Your task to perform on an android device: Is it going to rain today? Image 0: 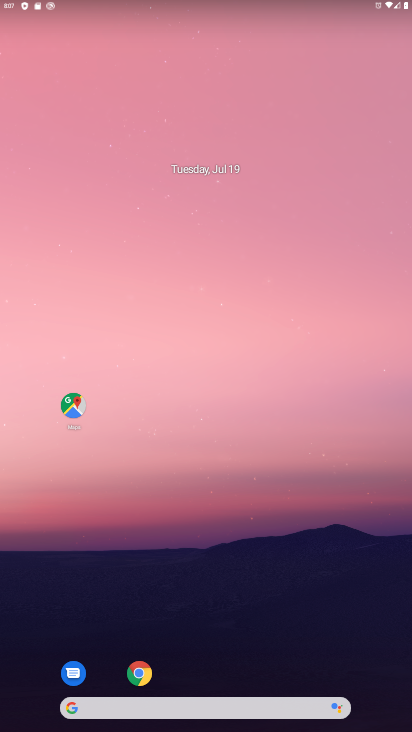
Step 0: drag from (241, 659) to (170, 118)
Your task to perform on an android device: Is it going to rain today? Image 1: 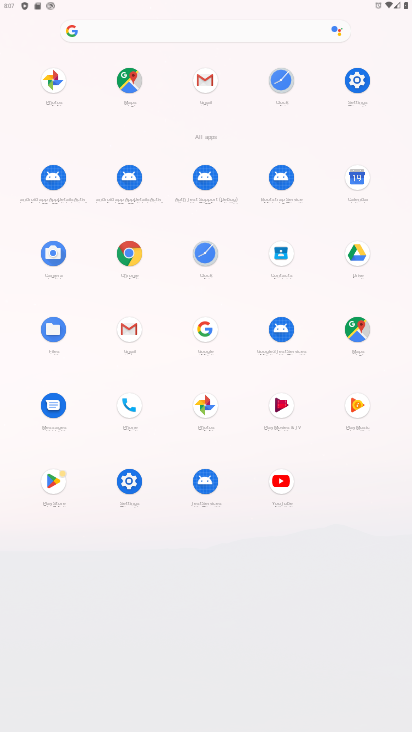
Step 1: click (126, 251)
Your task to perform on an android device: Is it going to rain today? Image 2: 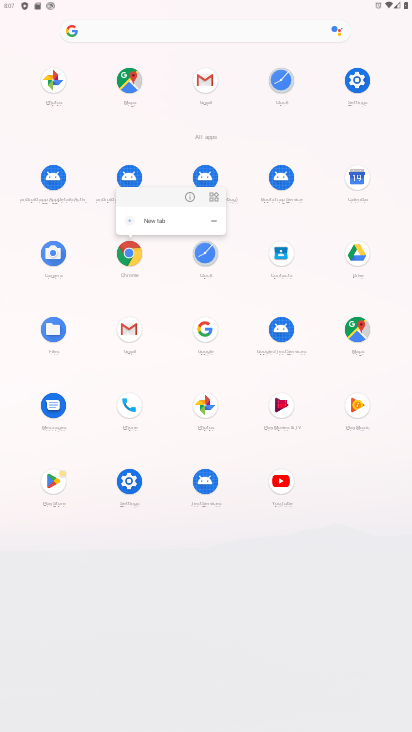
Step 2: click (139, 254)
Your task to perform on an android device: Is it going to rain today? Image 3: 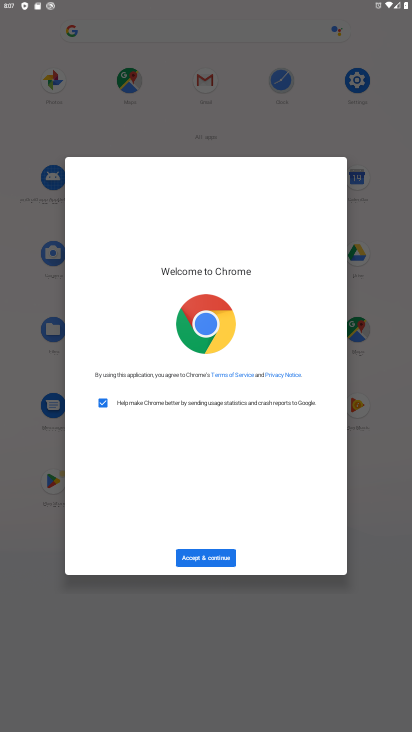
Step 3: click (229, 562)
Your task to perform on an android device: Is it going to rain today? Image 4: 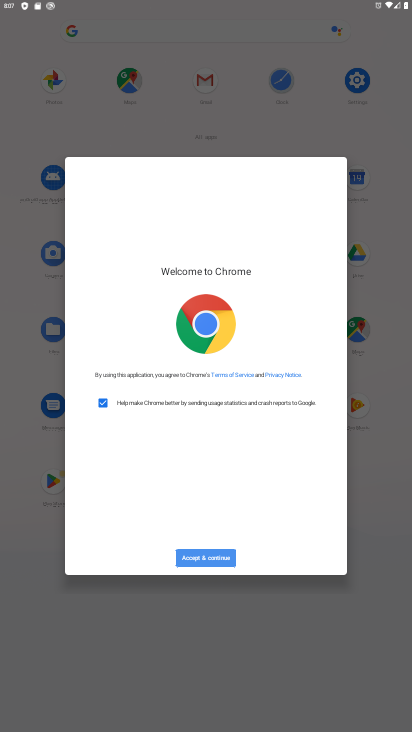
Step 4: click (229, 562)
Your task to perform on an android device: Is it going to rain today? Image 5: 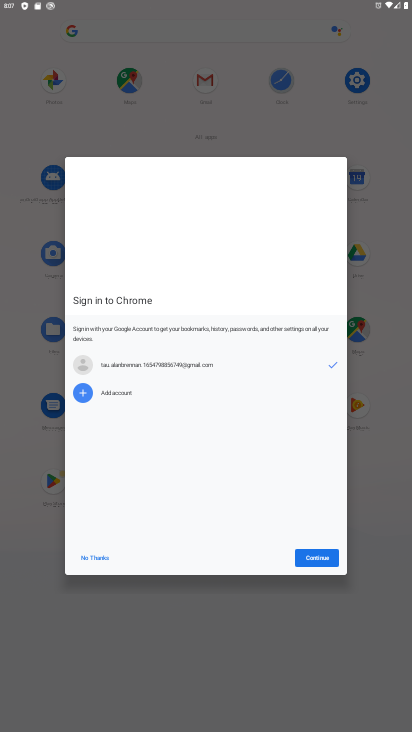
Step 5: click (229, 562)
Your task to perform on an android device: Is it going to rain today? Image 6: 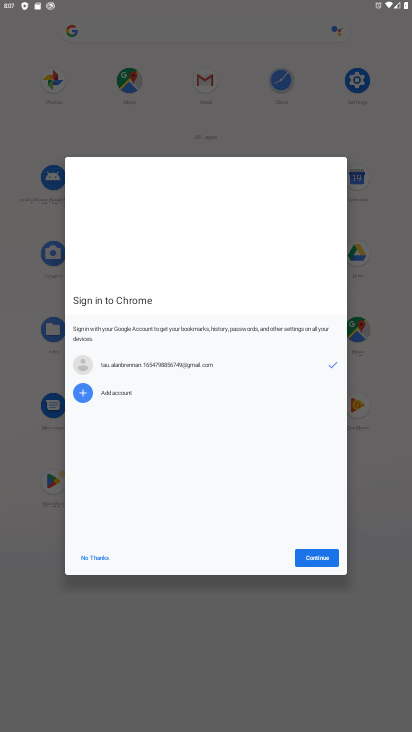
Step 6: click (315, 562)
Your task to perform on an android device: Is it going to rain today? Image 7: 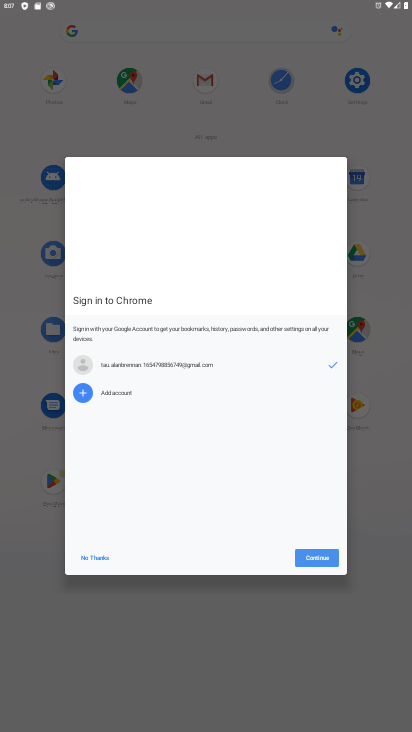
Step 7: click (317, 562)
Your task to perform on an android device: Is it going to rain today? Image 8: 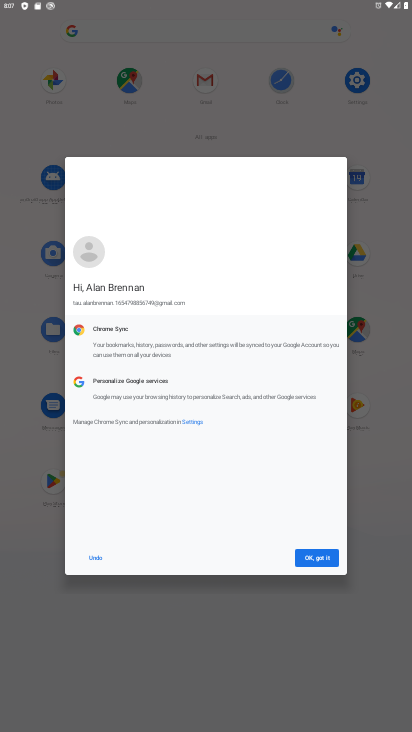
Step 8: click (319, 563)
Your task to perform on an android device: Is it going to rain today? Image 9: 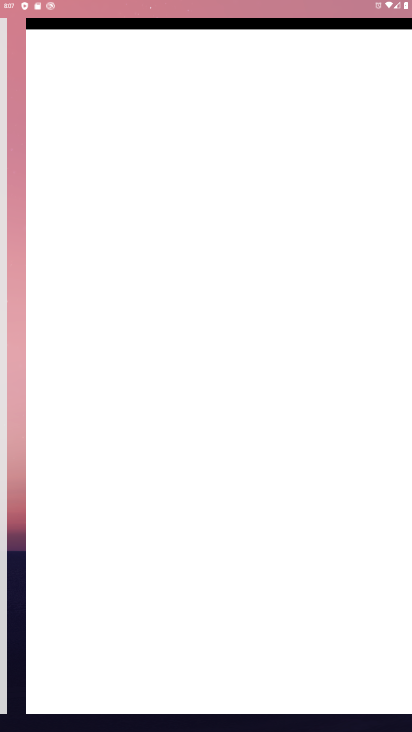
Step 9: click (323, 564)
Your task to perform on an android device: Is it going to rain today? Image 10: 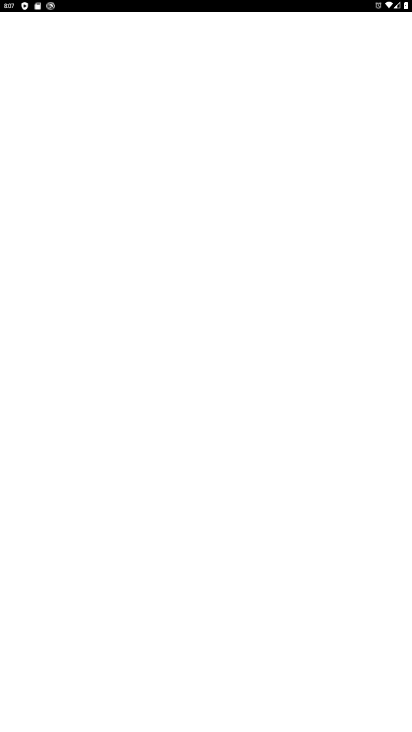
Step 10: click (323, 564)
Your task to perform on an android device: Is it going to rain today? Image 11: 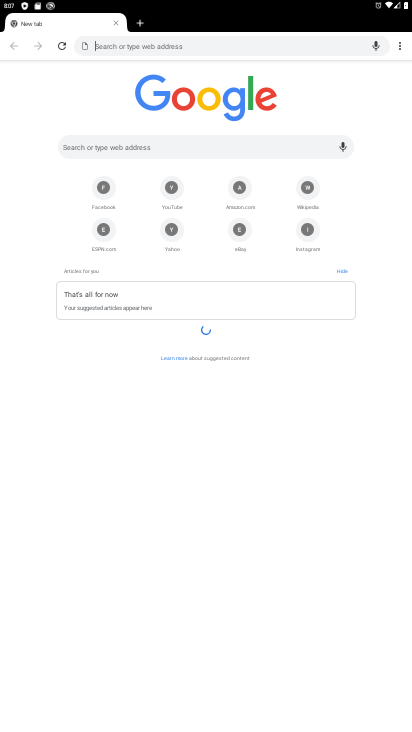
Step 11: click (129, 156)
Your task to perform on an android device: Is it going to rain today? Image 12: 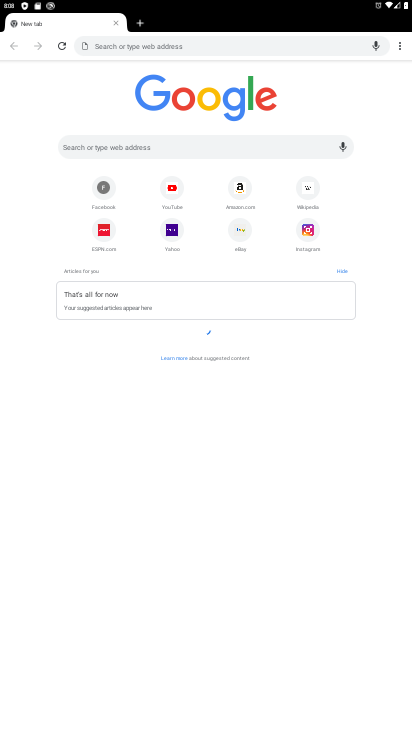
Step 12: click (115, 146)
Your task to perform on an android device: Is it going to rain today? Image 13: 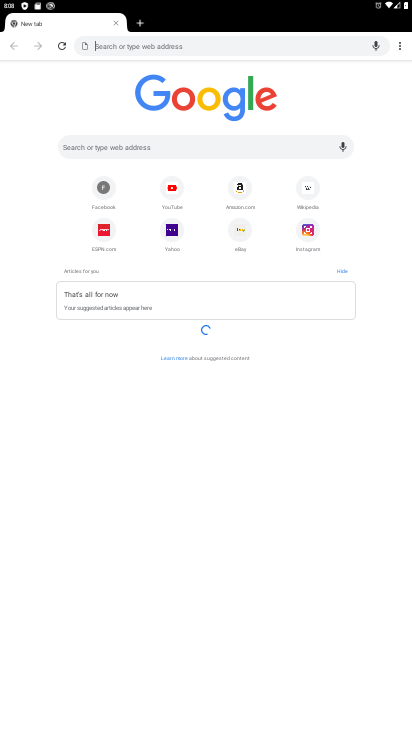
Step 13: click (115, 146)
Your task to perform on an android device: Is it going to rain today? Image 14: 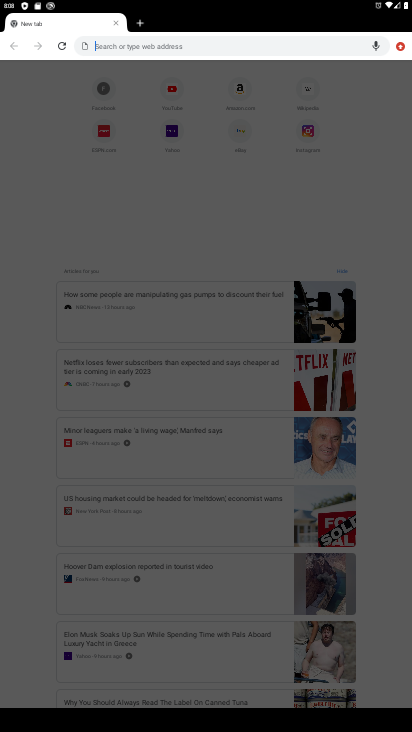
Step 14: type "is it goingbto rain today?"
Your task to perform on an android device: Is it going to rain today? Image 15: 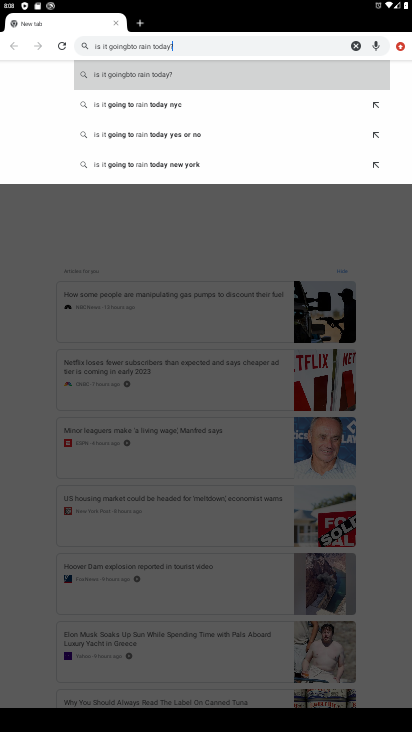
Step 15: click (159, 75)
Your task to perform on an android device: Is it going to rain today? Image 16: 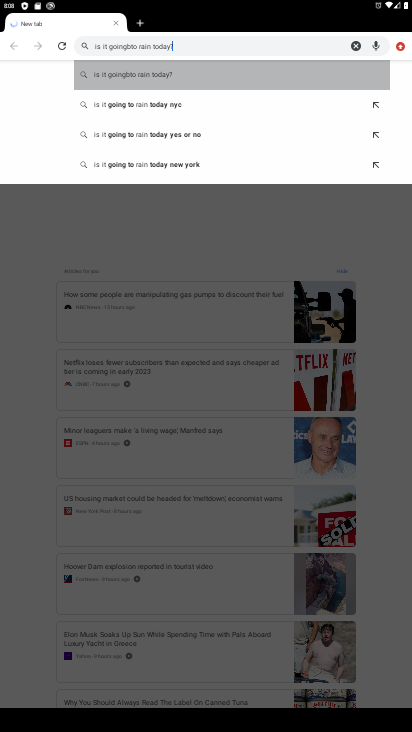
Step 16: click (159, 73)
Your task to perform on an android device: Is it going to rain today? Image 17: 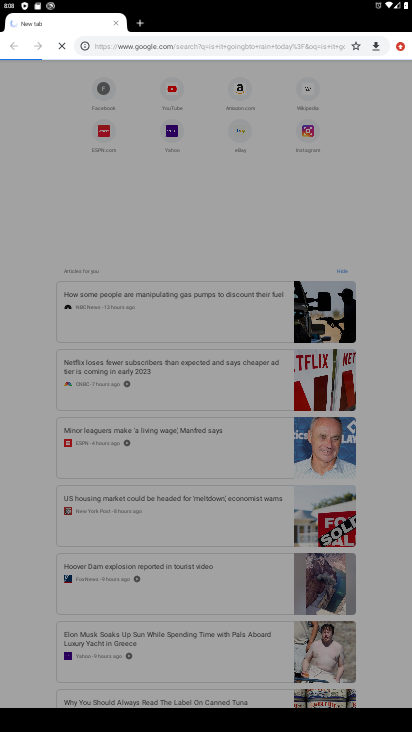
Step 17: click (159, 73)
Your task to perform on an android device: Is it going to rain today? Image 18: 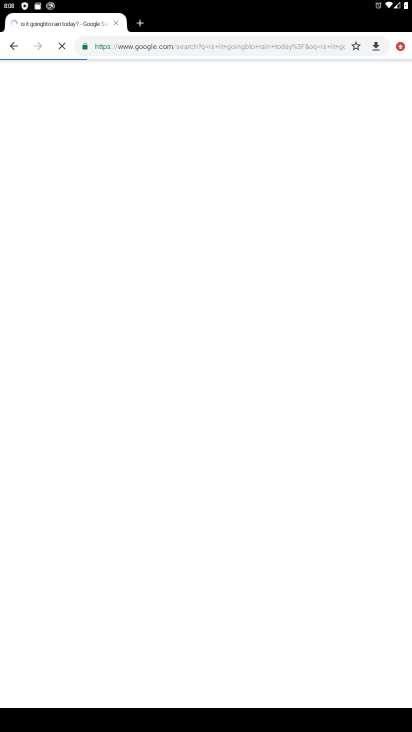
Step 18: click (160, 73)
Your task to perform on an android device: Is it going to rain today? Image 19: 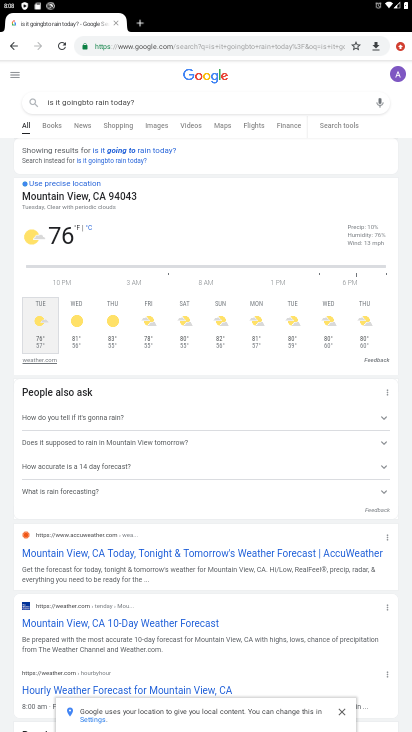
Step 19: press back button
Your task to perform on an android device: Is it going to rain today? Image 20: 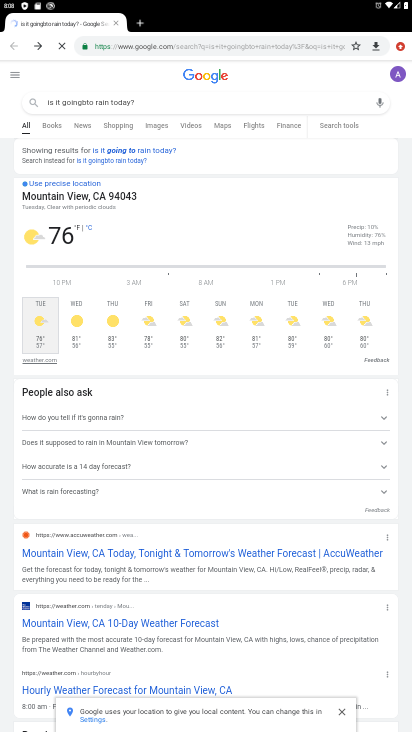
Step 20: press back button
Your task to perform on an android device: Is it going to rain today? Image 21: 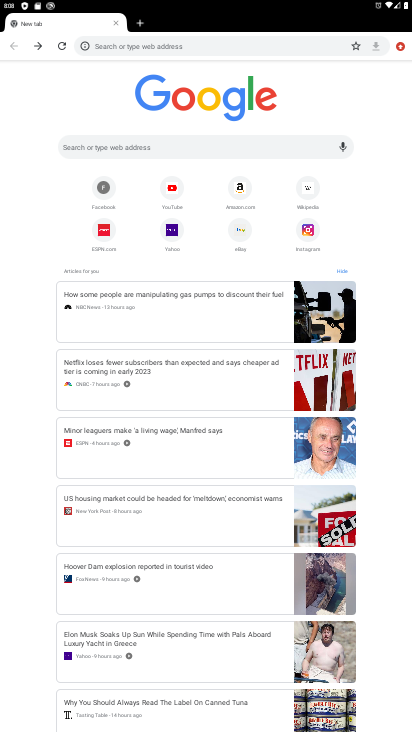
Step 21: click (96, 144)
Your task to perform on an android device: Is it going to rain today? Image 22: 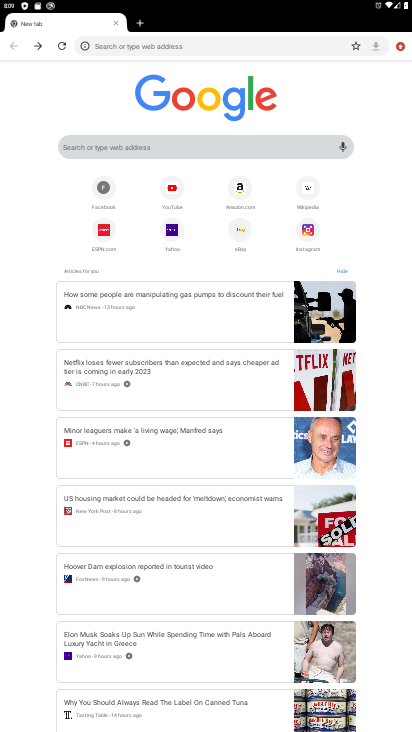
Step 22: click (98, 147)
Your task to perform on an android device: Is it going to rain today? Image 23: 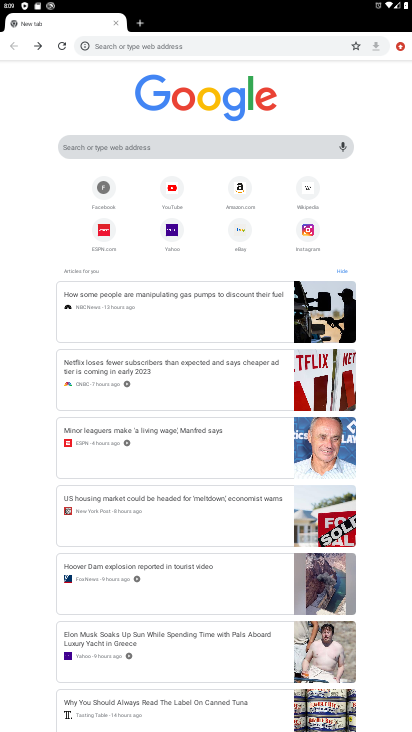
Step 23: click (98, 148)
Your task to perform on an android device: Is it going to rain today? Image 24: 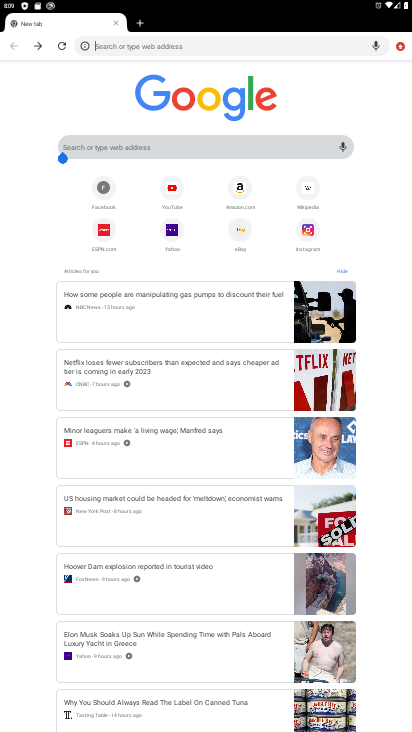
Step 24: click (99, 146)
Your task to perform on an android device: Is it going to rain today? Image 25: 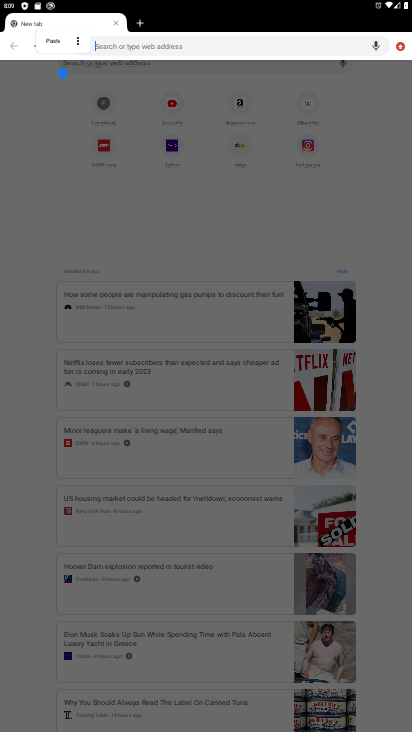
Step 25: click (99, 146)
Your task to perform on an android device: Is it going to rain today? Image 26: 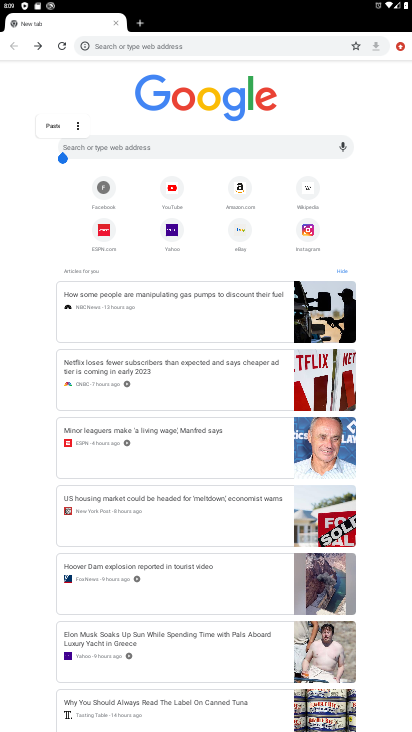
Step 26: task complete